Your task to perform on an android device: see creations saved in the google photos Image 0: 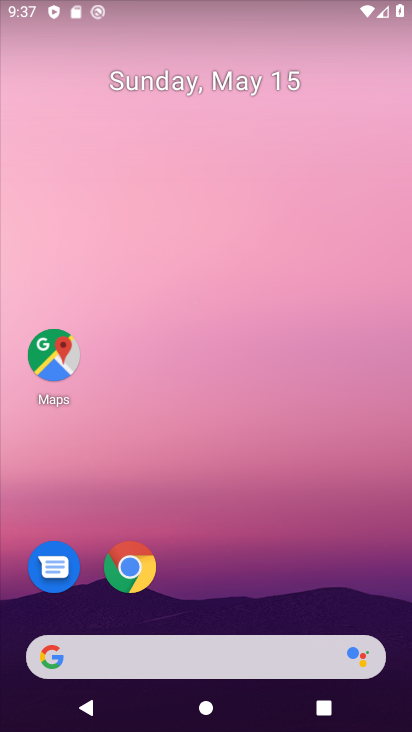
Step 0: drag from (237, 568) to (261, 48)
Your task to perform on an android device: see creations saved in the google photos Image 1: 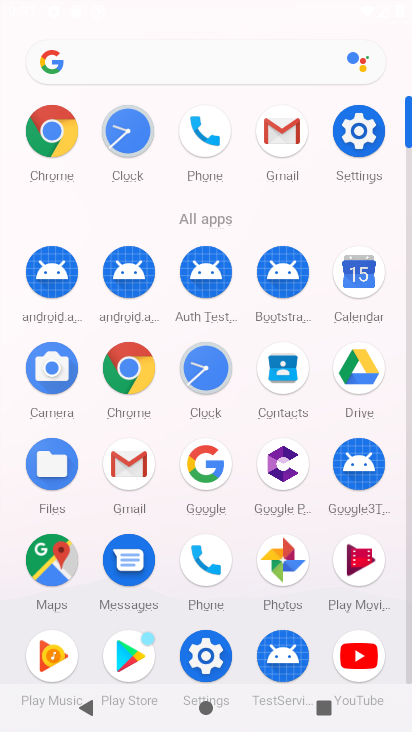
Step 1: click (280, 550)
Your task to perform on an android device: see creations saved in the google photos Image 2: 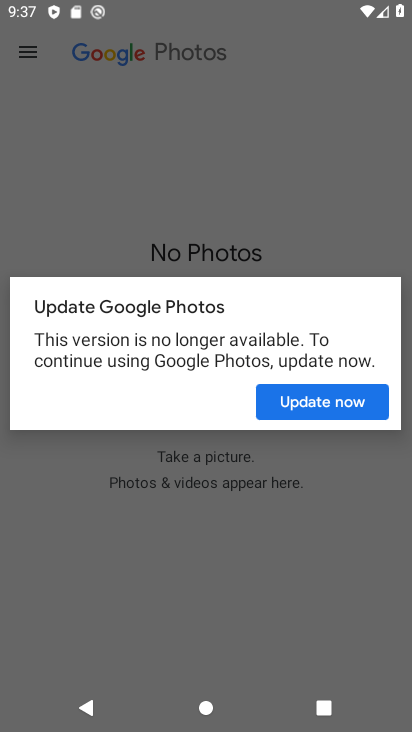
Step 2: click (340, 409)
Your task to perform on an android device: see creations saved in the google photos Image 3: 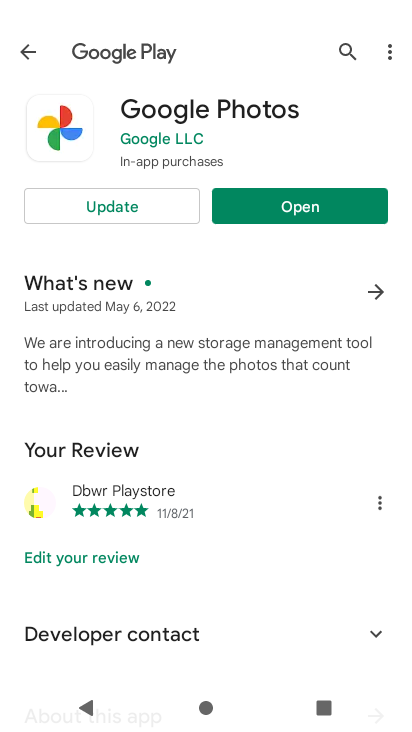
Step 3: click (112, 195)
Your task to perform on an android device: see creations saved in the google photos Image 4: 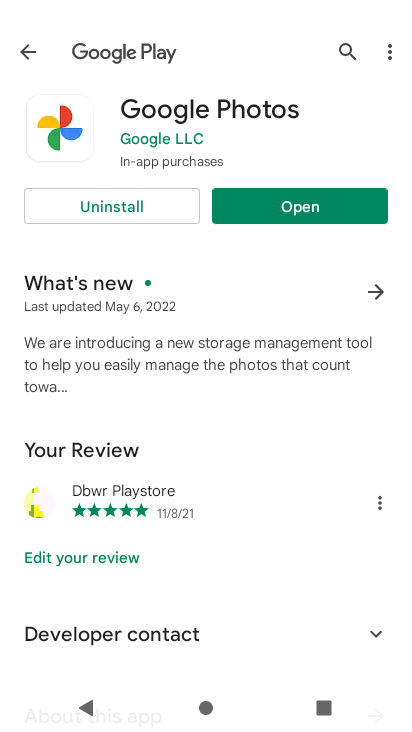
Step 4: click (332, 210)
Your task to perform on an android device: see creations saved in the google photos Image 5: 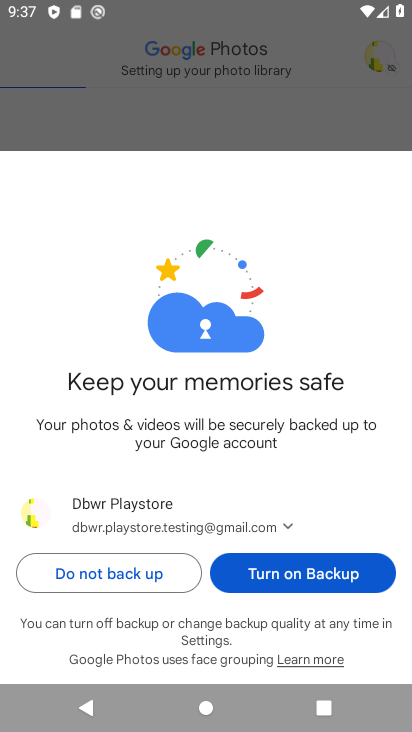
Step 5: click (310, 570)
Your task to perform on an android device: see creations saved in the google photos Image 6: 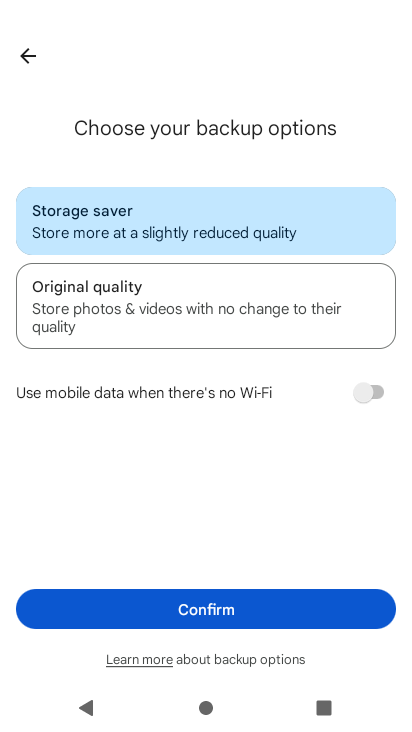
Step 6: click (225, 607)
Your task to perform on an android device: see creations saved in the google photos Image 7: 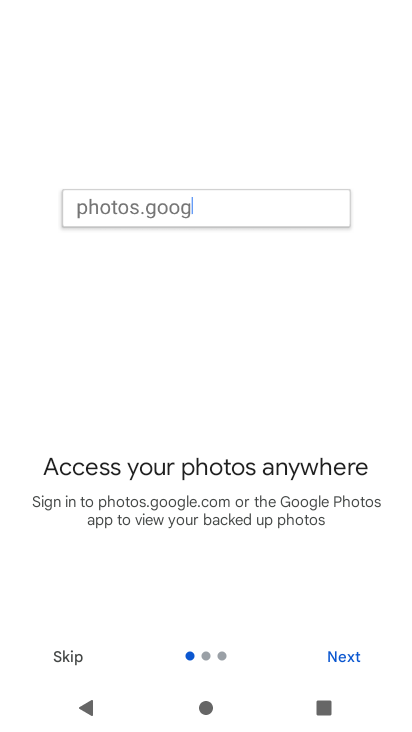
Step 7: click (338, 654)
Your task to perform on an android device: see creations saved in the google photos Image 8: 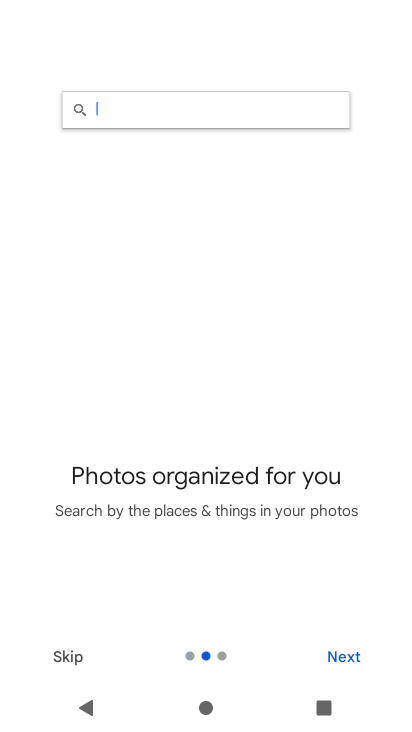
Step 8: click (338, 654)
Your task to perform on an android device: see creations saved in the google photos Image 9: 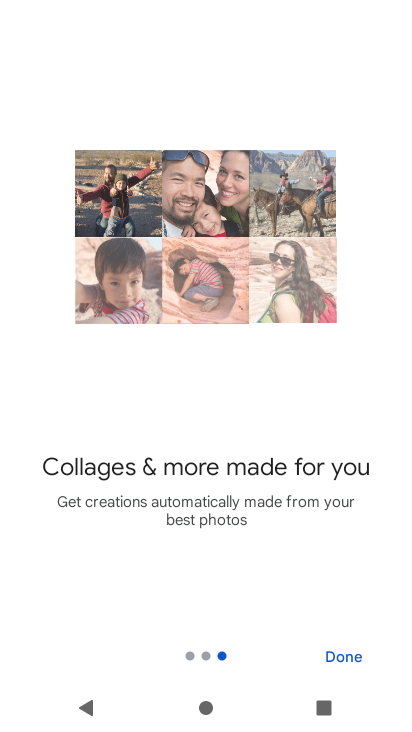
Step 9: click (338, 654)
Your task to perform on an android device: see creations saved in the google photos Image 10: 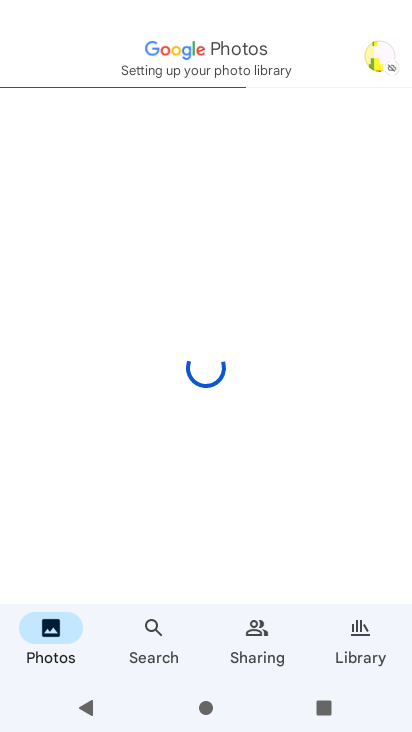
Step 10: click (338, 654)
Your task to perform on an android device: see creations saved in the google photos Image 11: 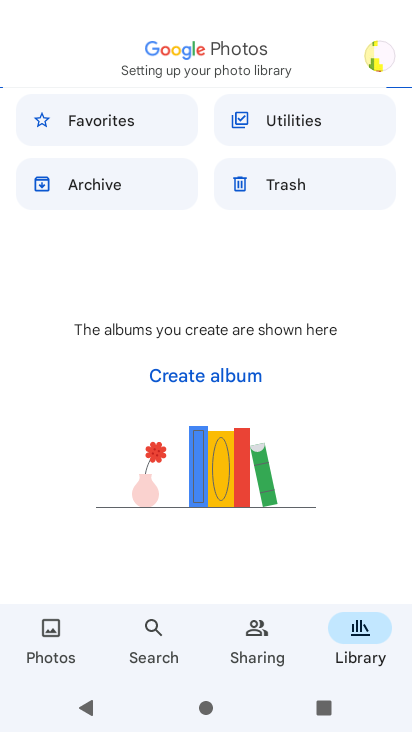
Step 11: click (146, 644)
Your task to perform on an android device: see creations saved in the google photos Image 12: 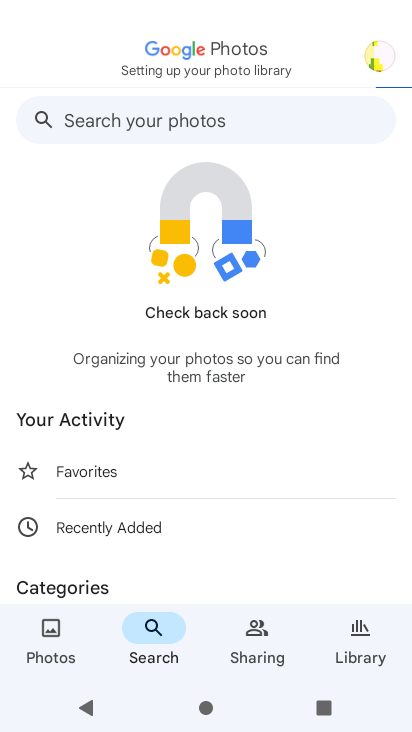
Step 12: click (127, 147)
Your task to perform on an android device: see creations saved in the google photos Image 13: 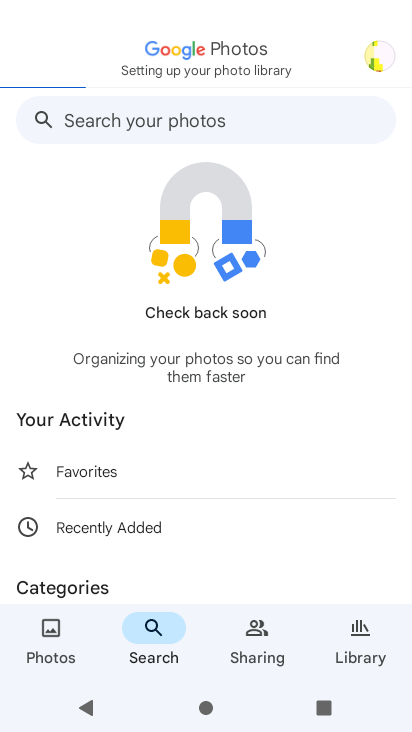
Step 13: click (128, 116)
Your task to perform on an android device: see creations saved in the google photos Image 14: 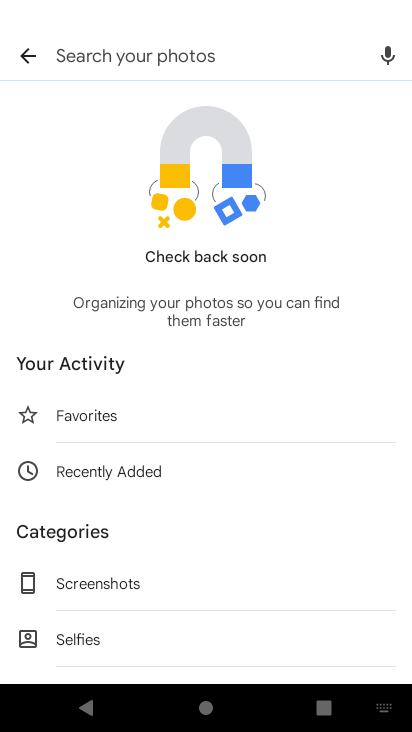
Step 14: drag from (218, 553) to (208, 149)
Your task to perform on an android device: see creations saved in the google photos Image 15: 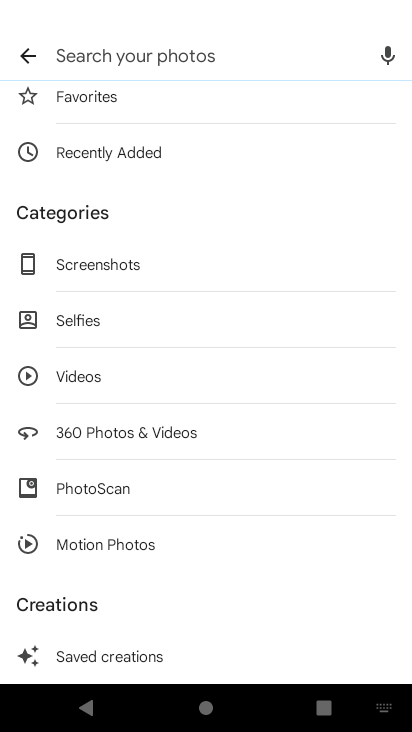
Step 15: click (94, 660)
Your task to perform on an android device: see creations saved in the google photos Image 16: 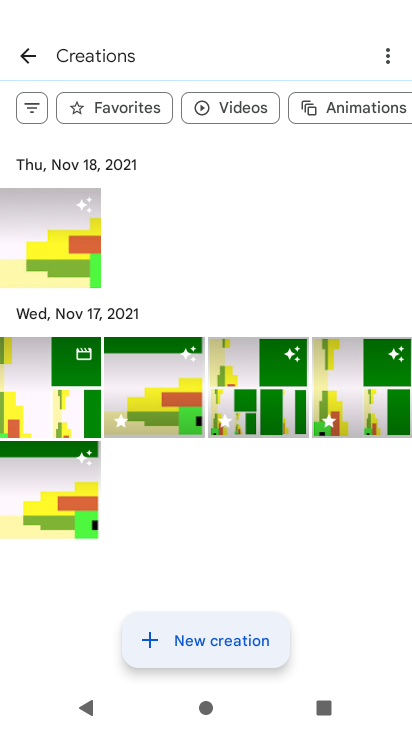
Step 16: task complete